Your task to perform on an android device: Search for sushi restaurants on Maps Image 0: 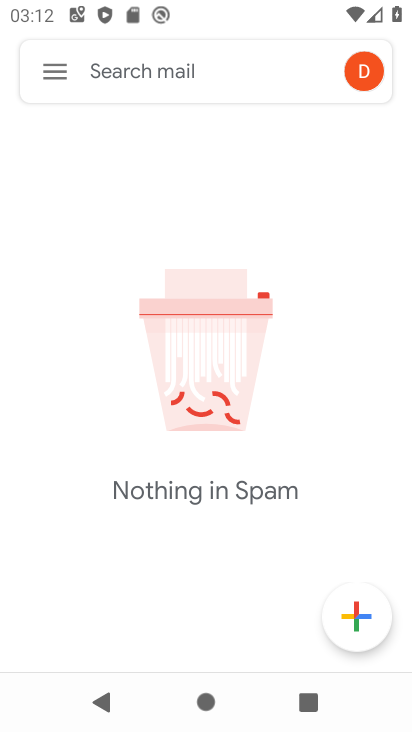
Step 0: press home button
Your task to perform on an android device: Search for sushi restaurants on Maps Image 1: 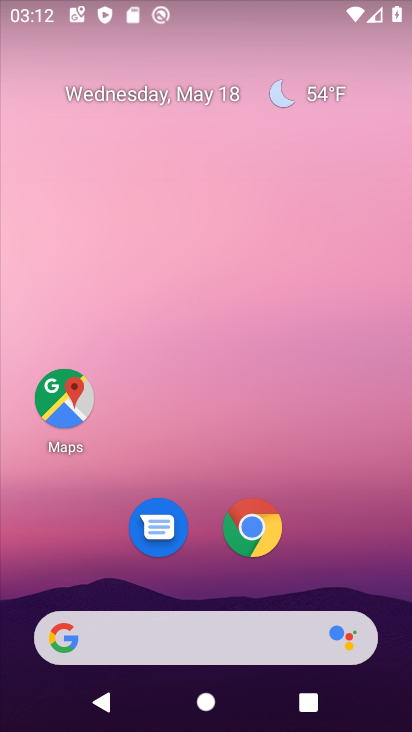
Step 1: drag from (223, 591) to (347, 446)
Your task to perform on an android device: Search for sushi restaurants on Maps Image 2: 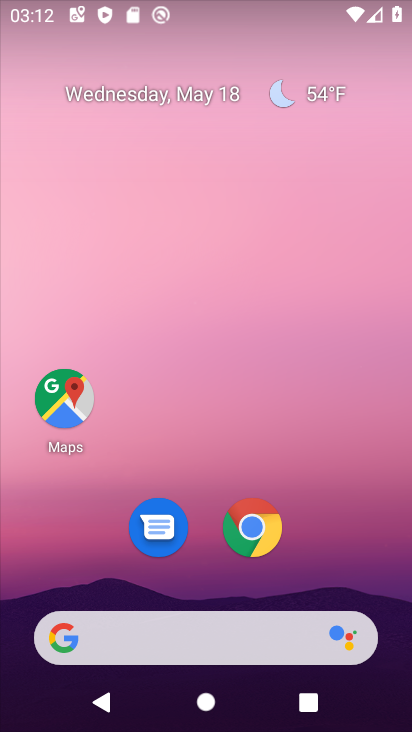
Step 2: drag from (187, 610) to (189, 48)
Your task to perform on an android device: Search for sushi restaurants on Maps Image 3: 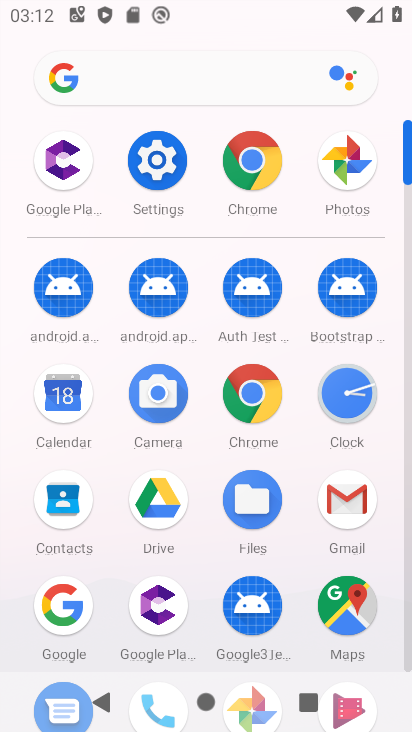
Step 3: click (360, 605)
Your task to perform on an android device: Search for sushi restaurants on Maps Image 4: 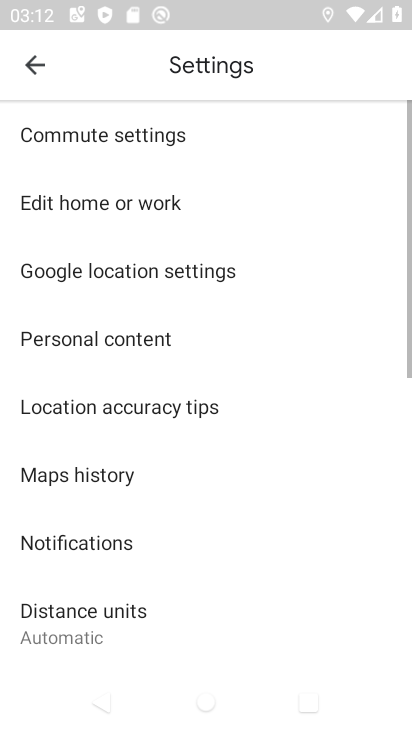
Step 4: click (30, 67)
Your task to perform on an android device: Search for sushi restaurants on Maps Image 5: 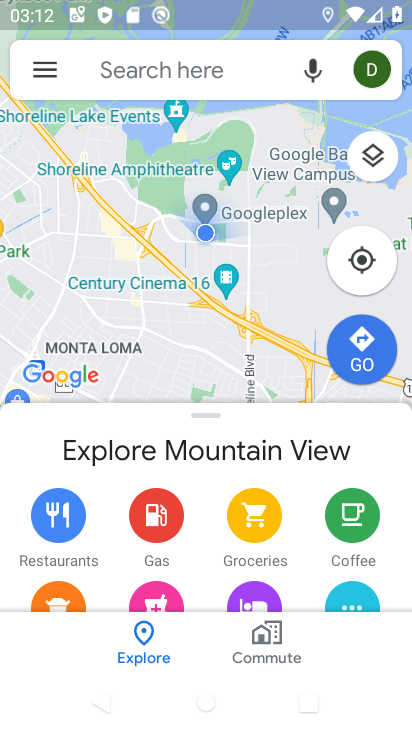
Step 5: click (196, 79)
Your task to perform on an android device: Search for sushi restaurants on Maps Image 6: 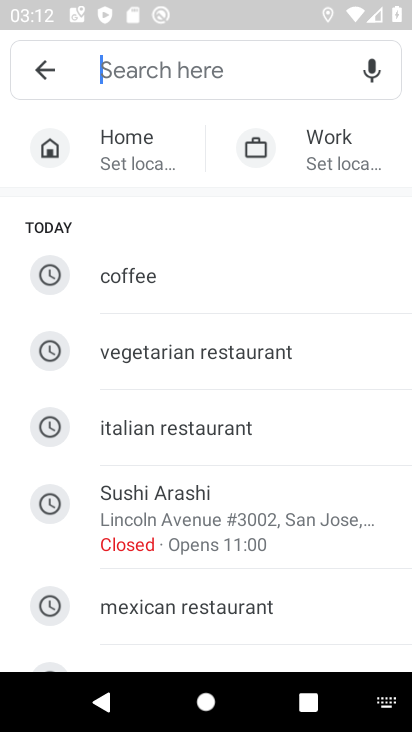
Step 6: drag from (188, 503) to (148, 153)
Your task to perform on an android device: Search for sushi restaurants on Maps Image 7: 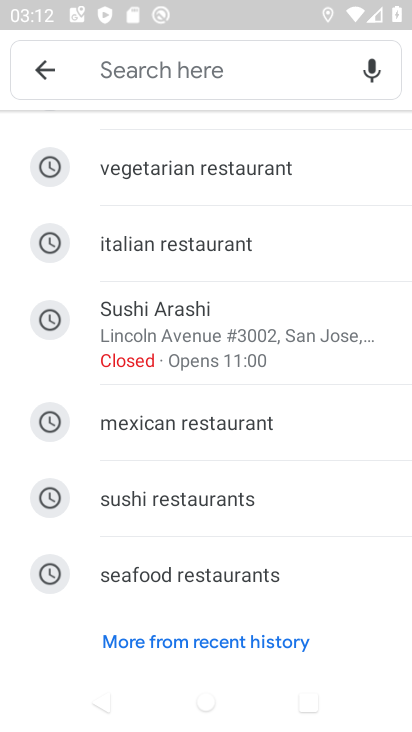
Step 7: click (179, 502)
Your task to perform on an android device: Search for sushi restaurants on Maps Image 8: 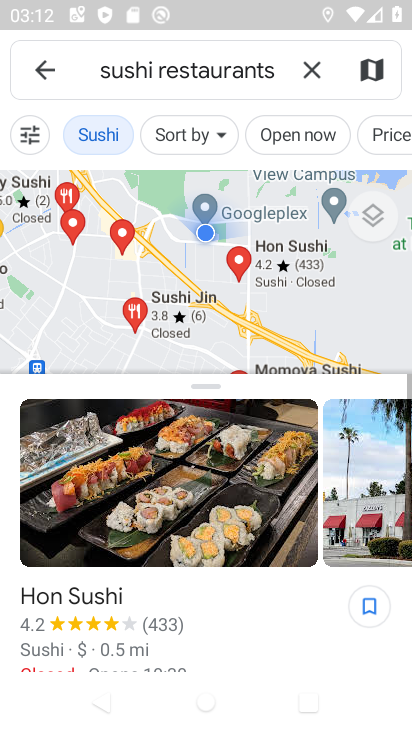
Step 8: task complete